Your task to perform on an android device: all mails in gmail Image 0: 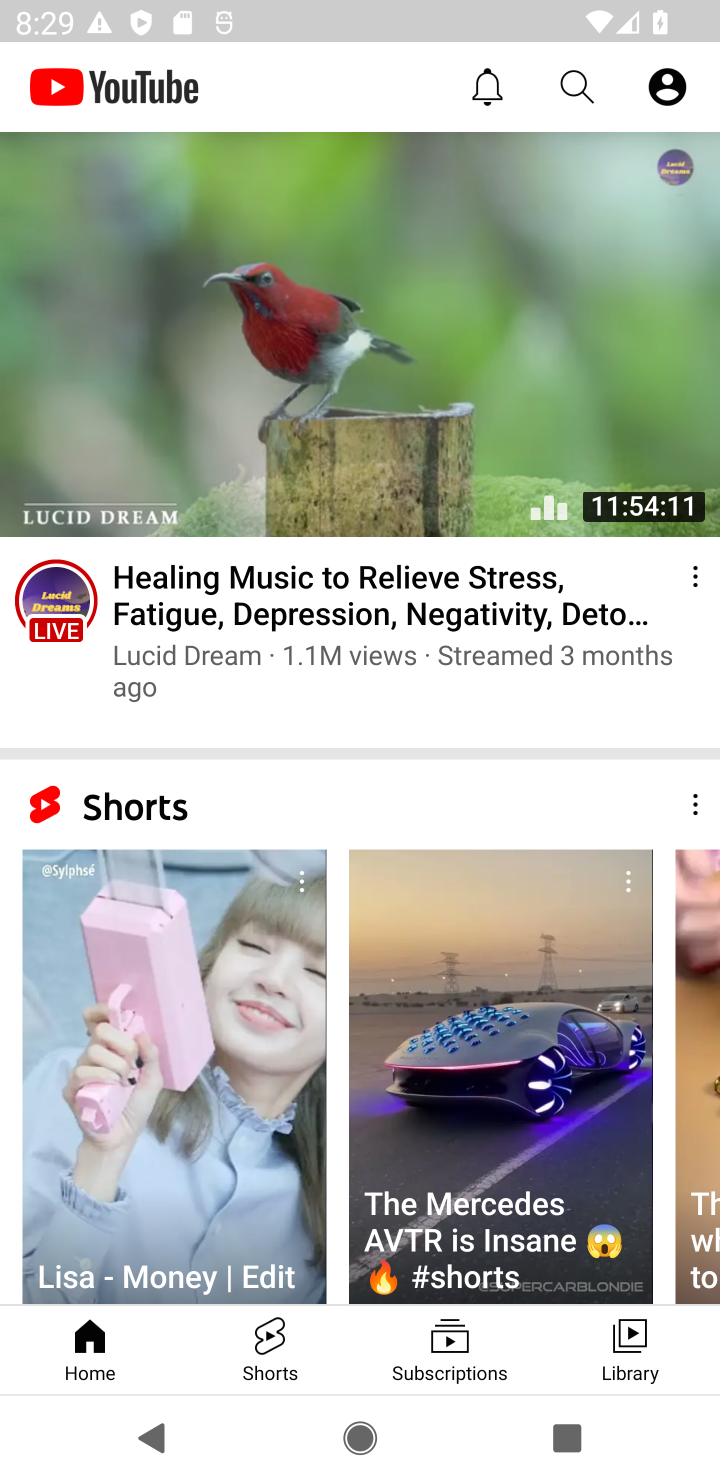
Step 0: press home button
Your task to perform on an android device: all mails in gmail Image 1: 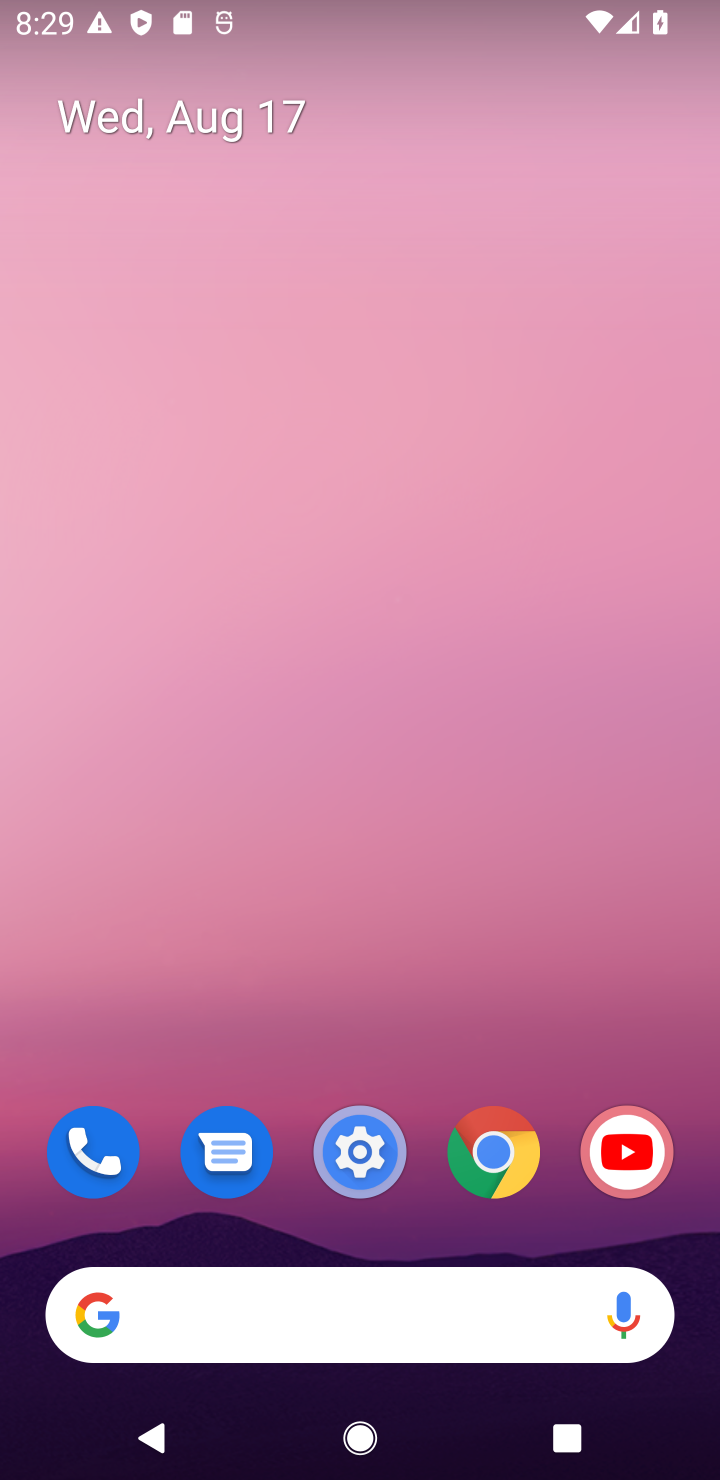
Step 1: drag from (312, 1096) to (597, 7)
Your task to perform on an android device: all mails in gmail Image 2: 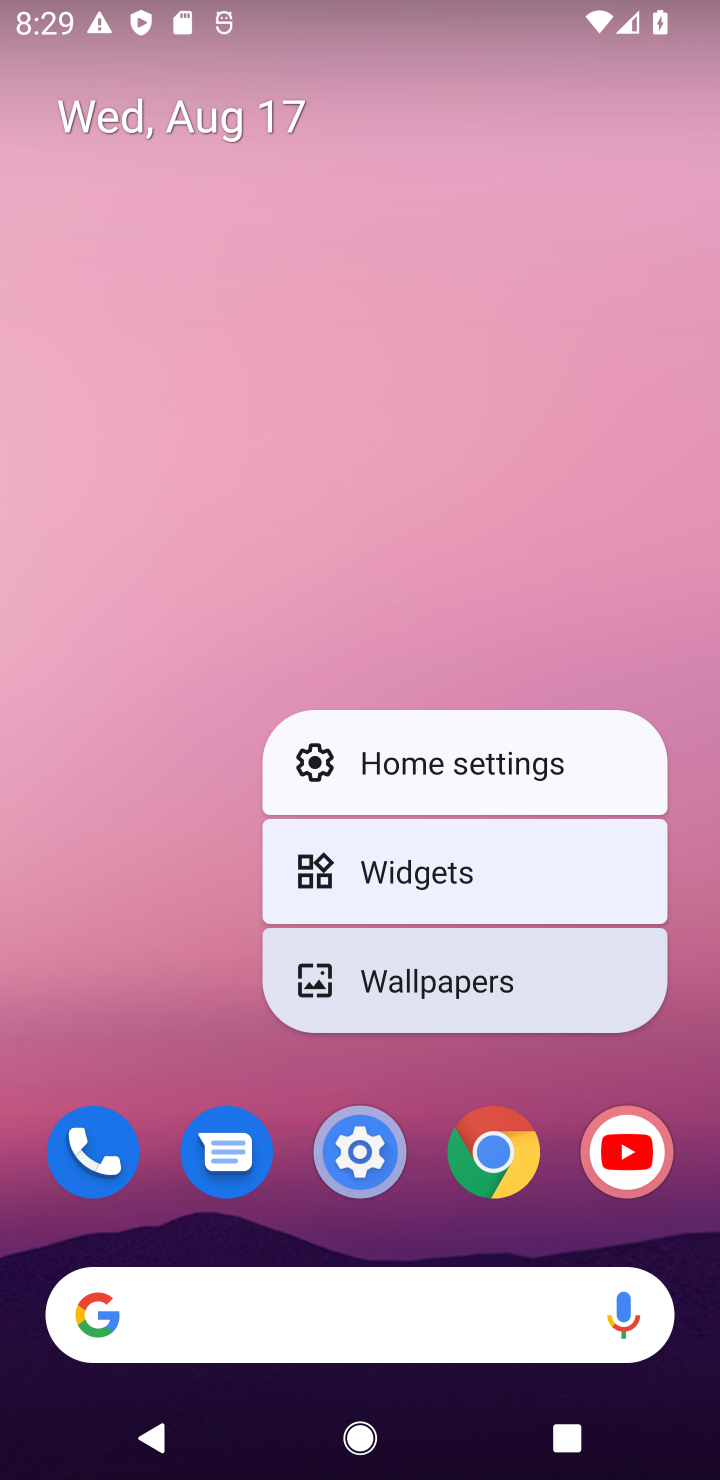
Step 2: drag from (179, 1062) to (496, 2)
Your task to perform on an android device: all mails in gmail Image 3: 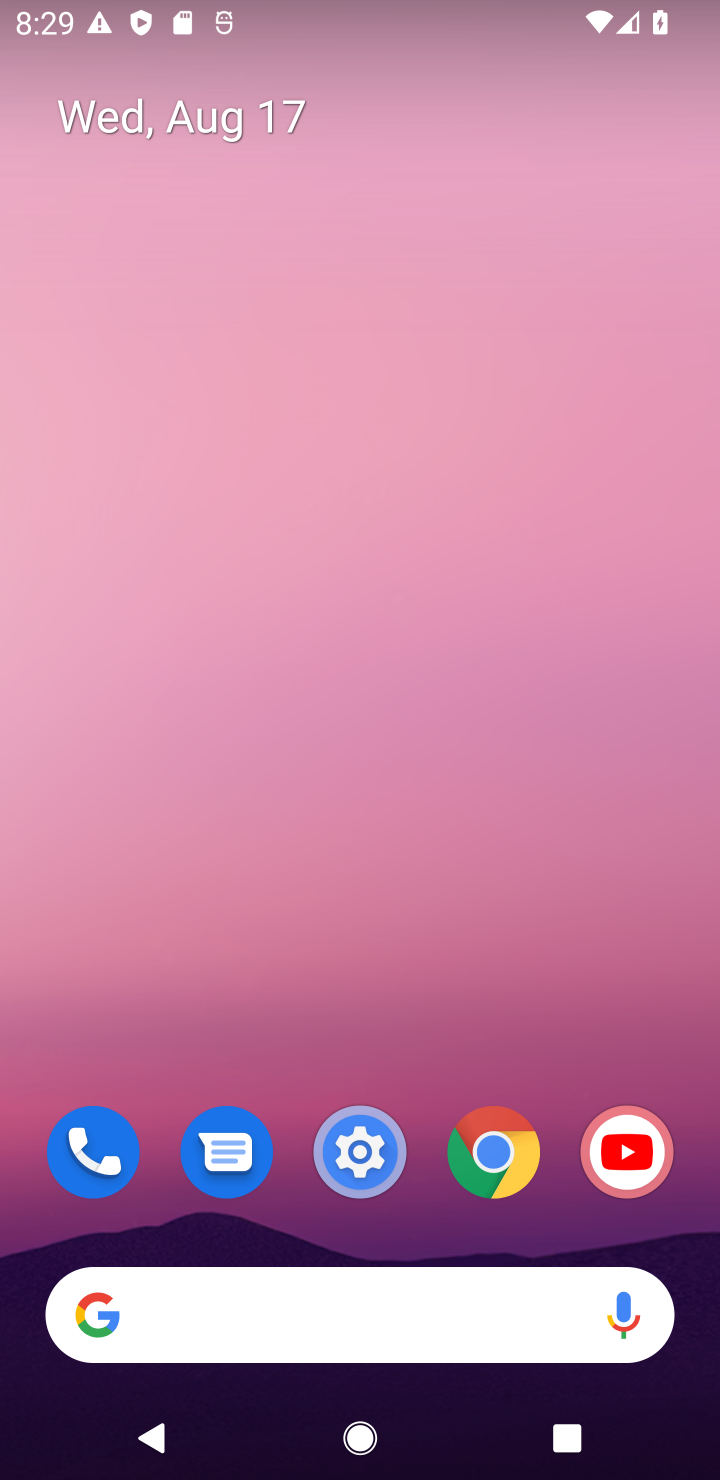
Step 3: drag from (104, 1283) to (393, 143)
Your task to perform on an android device: all mails in gmail Image 4: 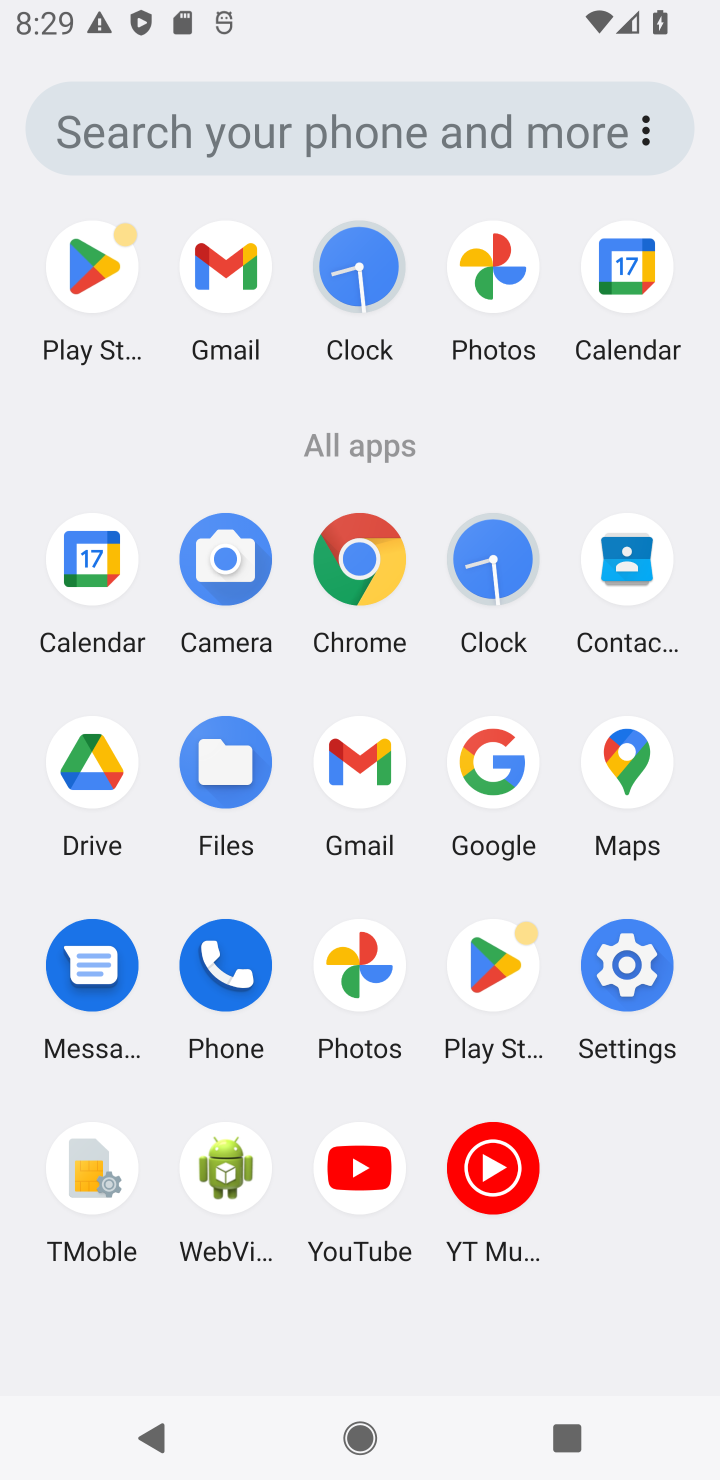
Step 4: click (214, 258)
Your task to perform on an android device: all mails in gmail Image 5: 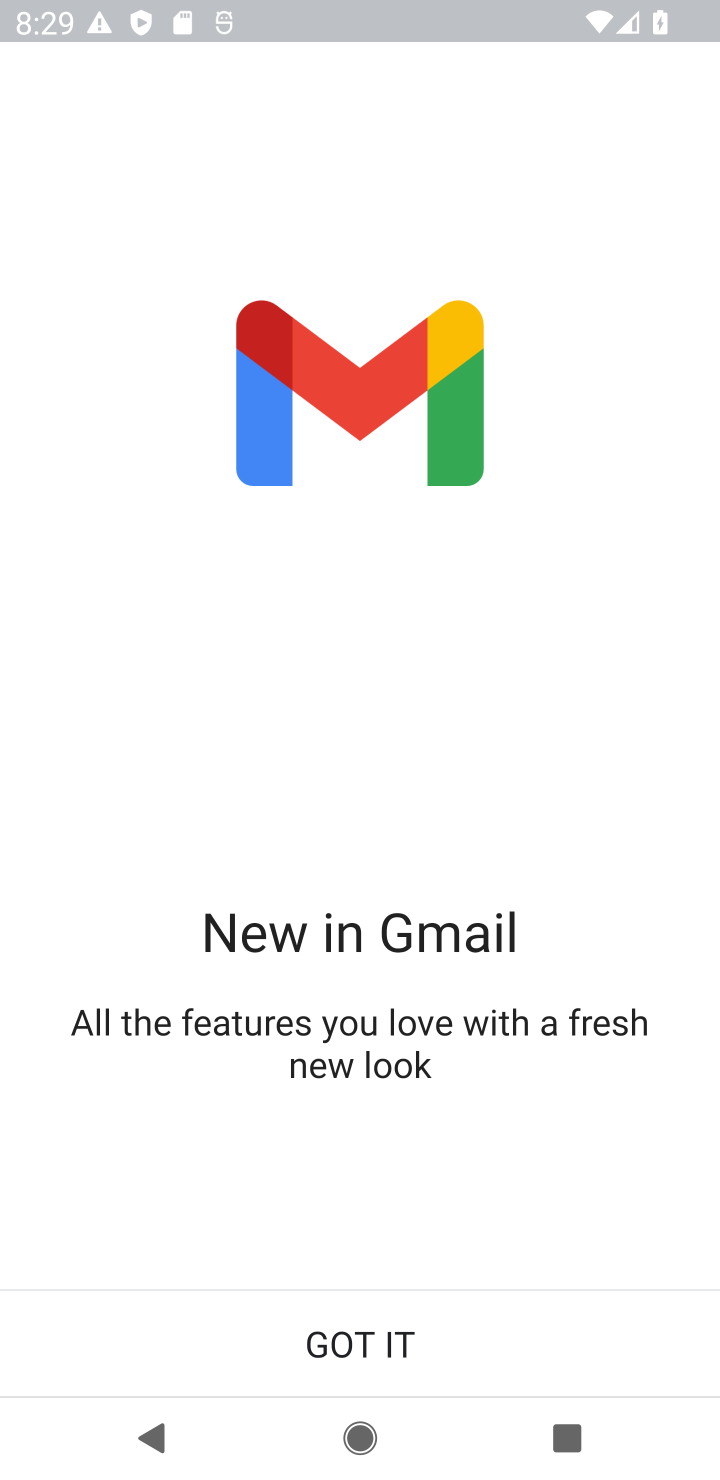
Step 5: click (366, 1335)
Your task to perform on an android device: all mails in gmail Image 6: 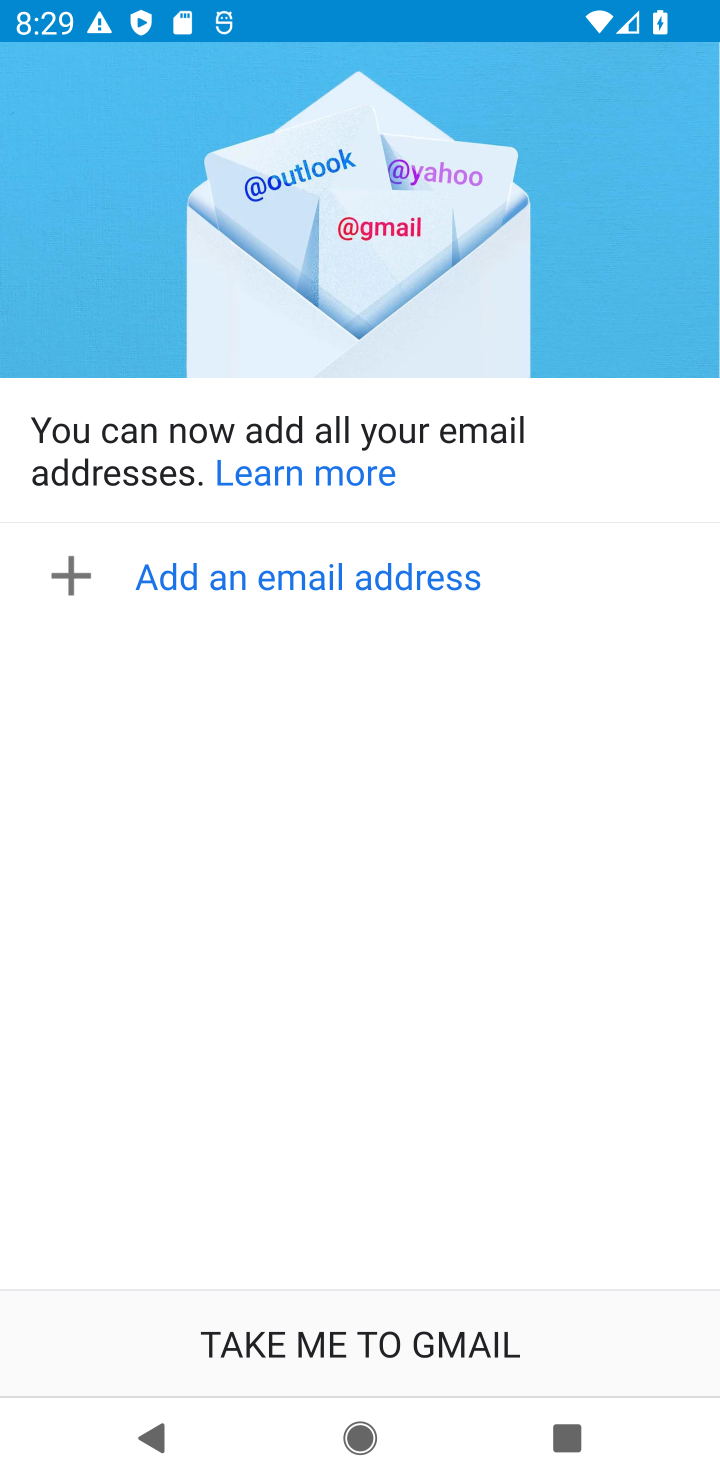
Step 6: click (264, 1337)
Your task to perform on an android device: all mails in gmail Image 7: 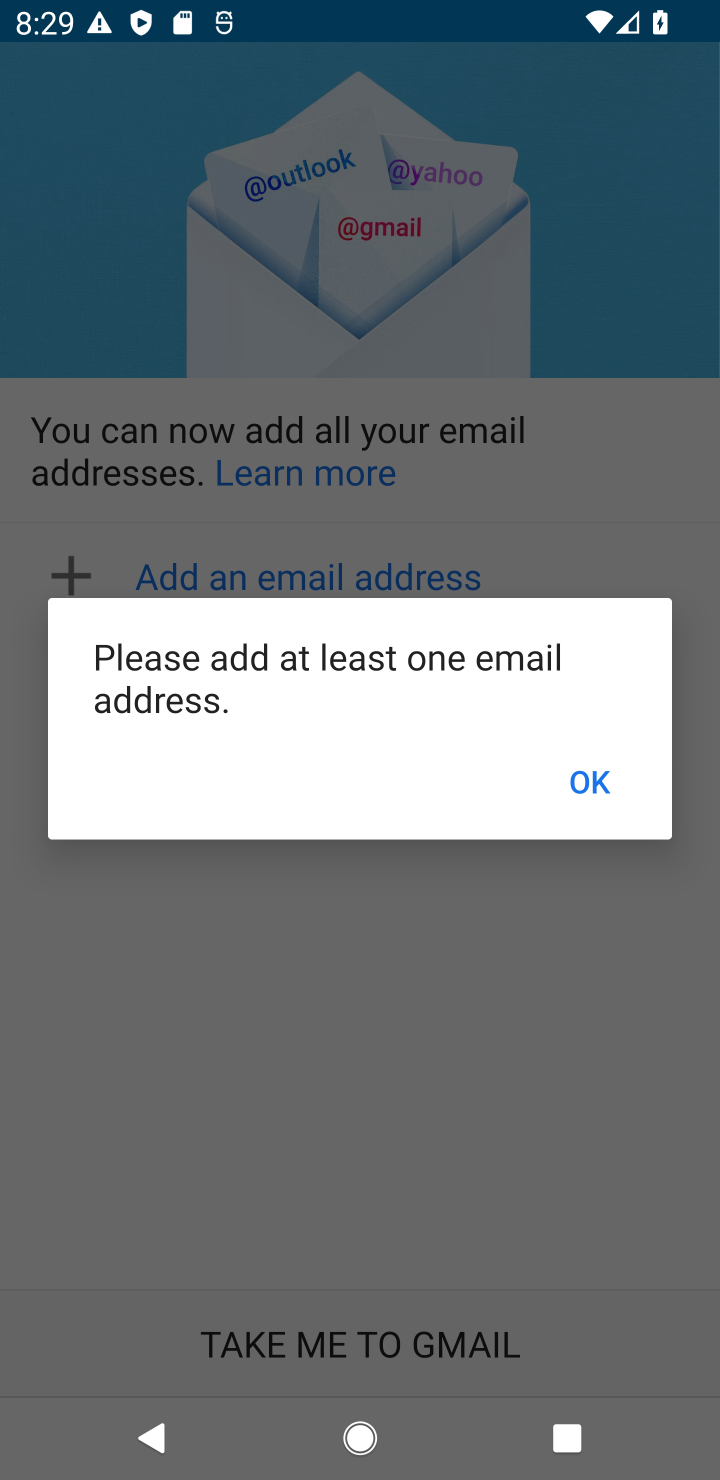
Step 7: task complete